Your task to perform on an android device: What's on my calendar tomorrow? Image 0: 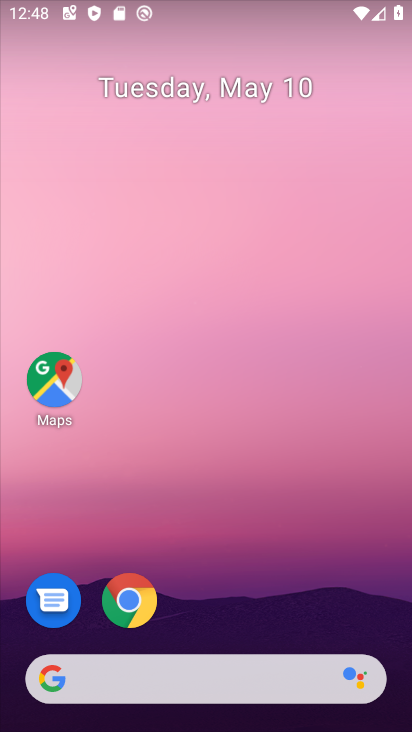
Step 0: drag from (199, 683) to (99, 169)
Your task to perform on an android device: What's on my calendar tomorrow? Image 1: 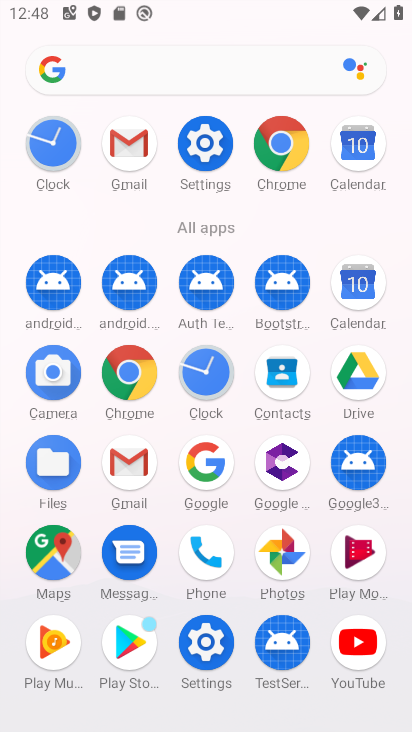
Step 1: click (356, 297)
Your task to perform on an android device: What's on my calendar tomorrow? Image 2: 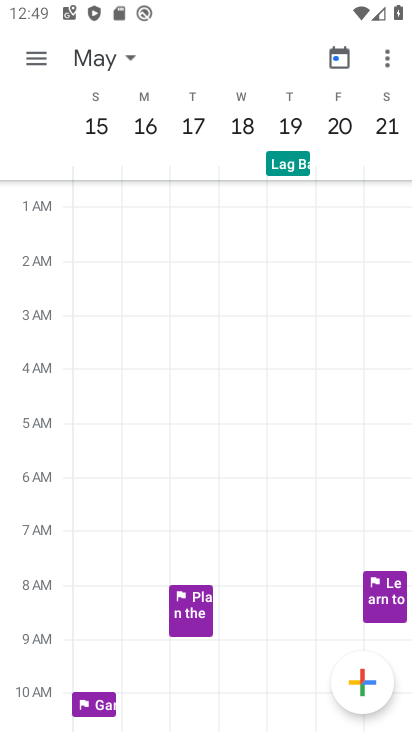
Step 2: click (43, 64)
Your task to perform on an android device: What's on my calendar tomorrow? Image 3: 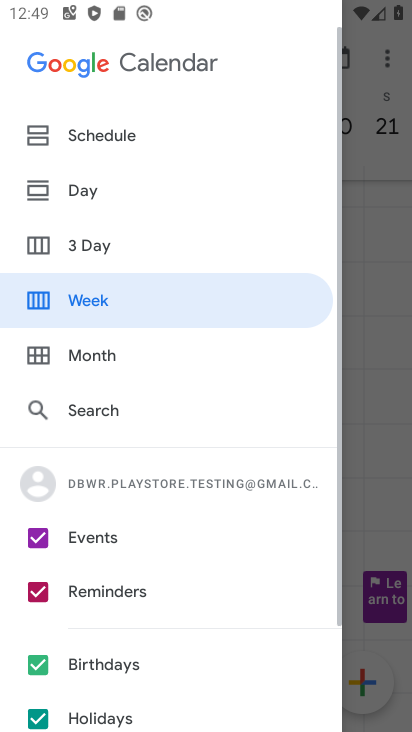
Step 3: click (96, 134)
Your task to perform on an android device: What's on my calendar tomorrow? Image 4: 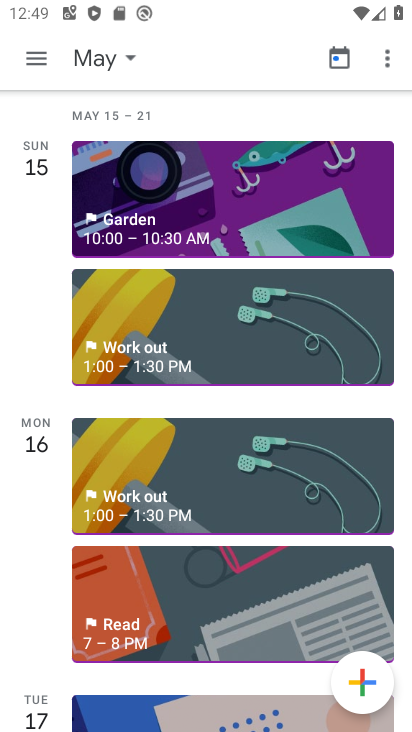
Step 4: click (102, 56)
Your task to perform on an android device: What's on my calendar tomorrow? Image 5: 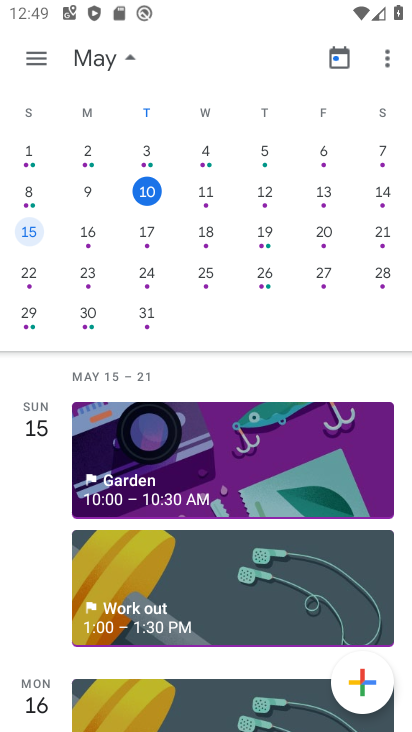
Step 5: click (204, 198)
Your task to perform on an android device: What's on my calendar tomorrow? Image 6: 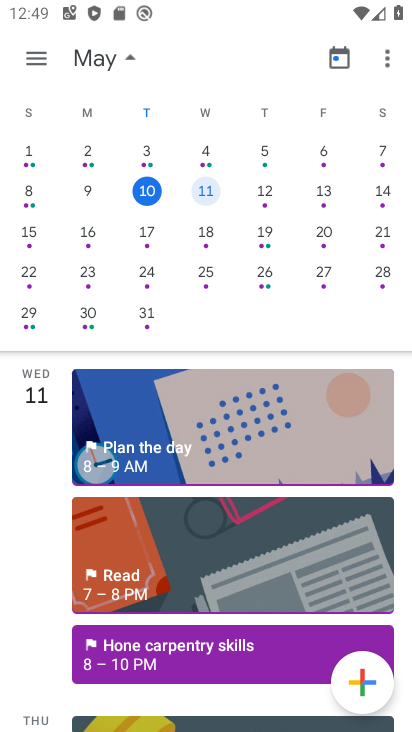
Step 6: click (118, 51)
Your task to perform on an android device: What's on my calendar tomorrow? Image 7: 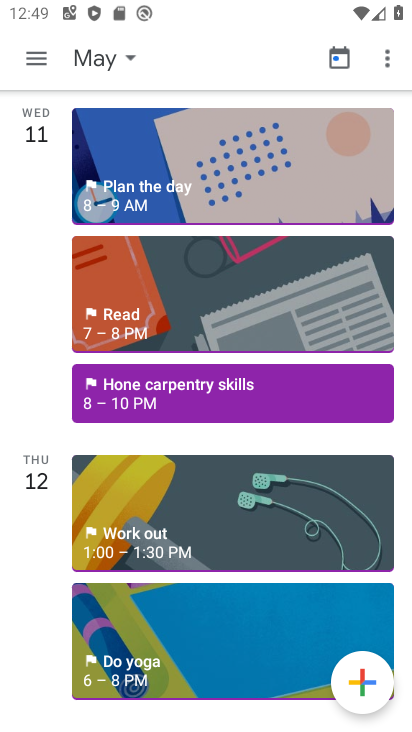
Step 7: task complete